Your task to perform on an android device: What's on my calendar tomorrow? Image 0: 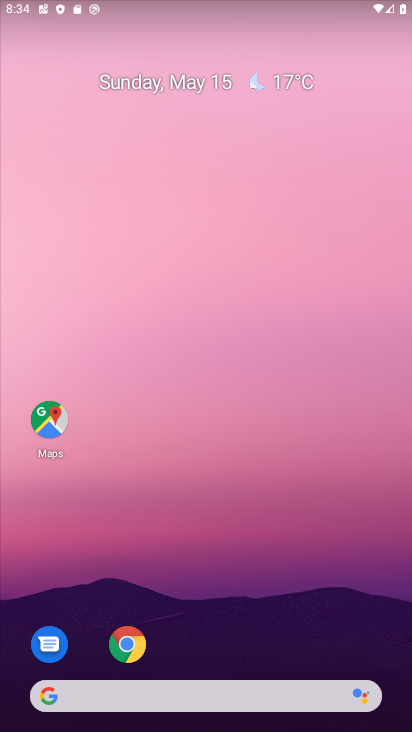
Step 0: drag from (284, 697) to (197, 187)
Your task to perform on an android device: What's on my calendar tomorrow? Image 1: 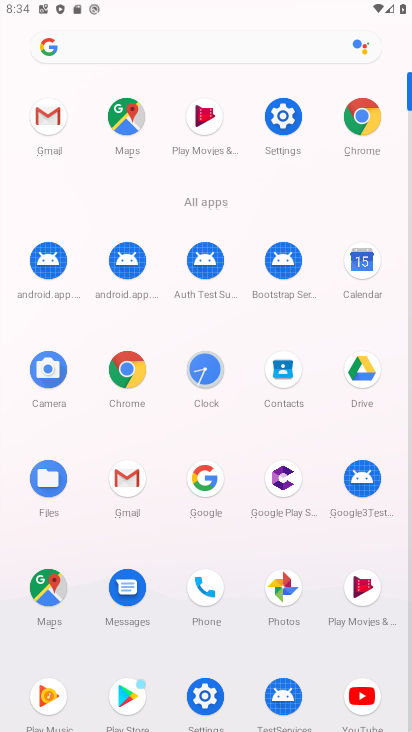
Step 1: click (345, 271)
Your task to perform on an android device: What's on my calendar tomorrow? Image 2: 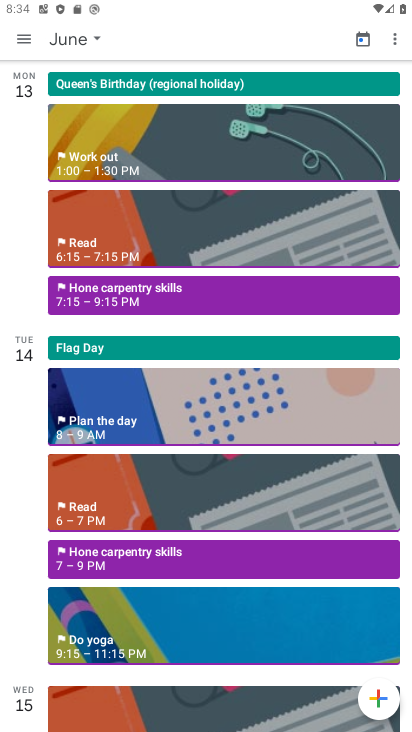
Step 2: click (27, 35)
Your task to perform on an android device: What's on my calendar tomorrow? Image 3: 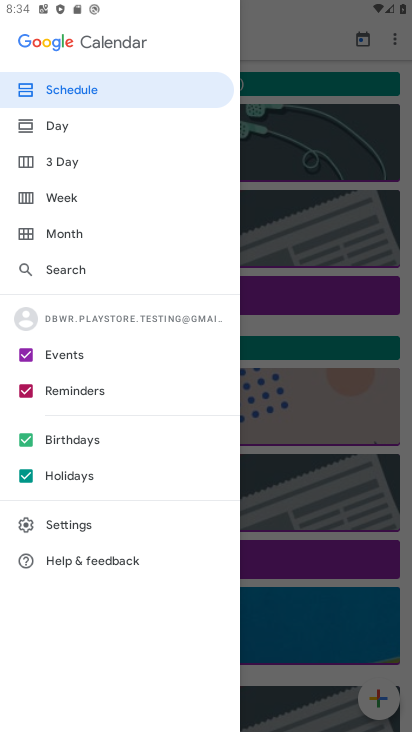
Step 3: click (88, 233)
Your task to perform on an android device: What's on my calendar tomorrow? Image 4: 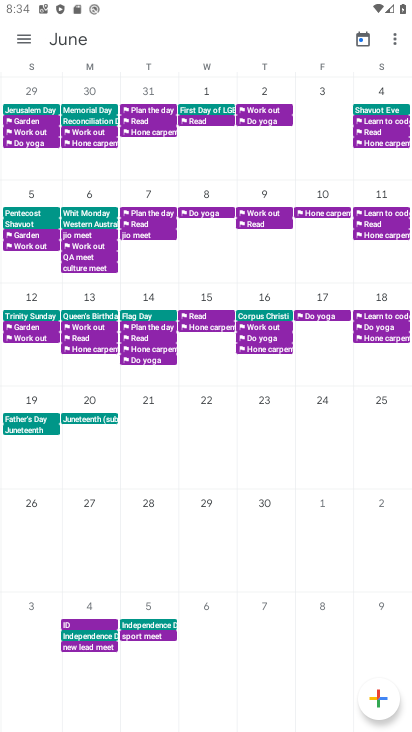
Step 4: drag from (41, 306) to (399, 273)
Your task to perform on an android device: What's on my calendar tomorrow? Image 5: 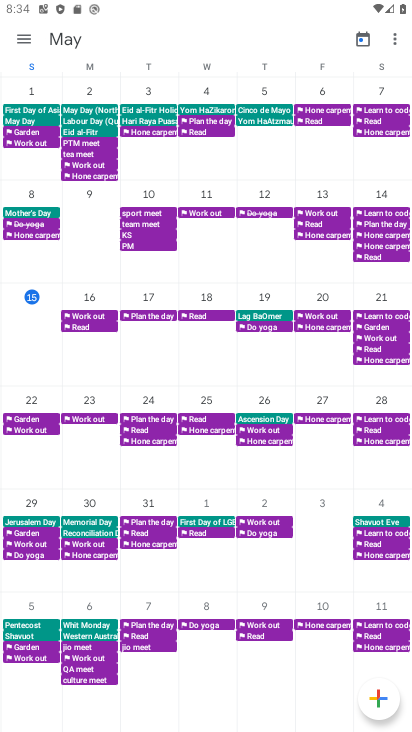
Step 5: click (82, 304)
Your task to perform on an android device: What's on my calendar tomorrow? Image 6: 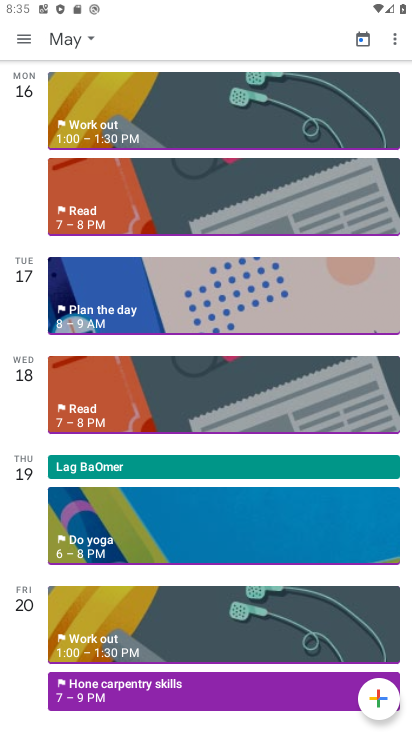
Step 6: task complete